Your task to perform on an android device: Go to internet settings Image 0: 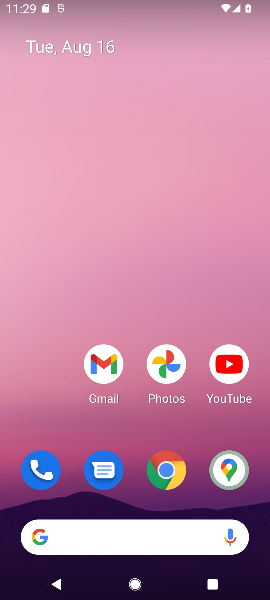
Step 0: drag from (52, 380) to (91, 8)
Your task to perform on an android device: Go to internet settings Image 1: 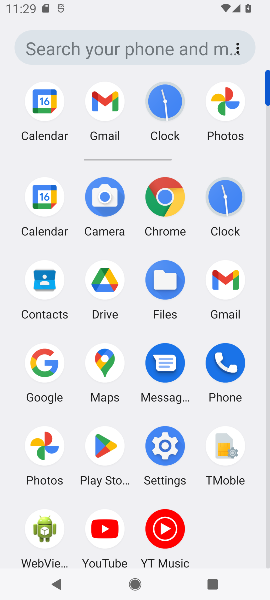
Step 1: click (164, 443)
Your task to perform on an android device: Go to internet settings Image 2: 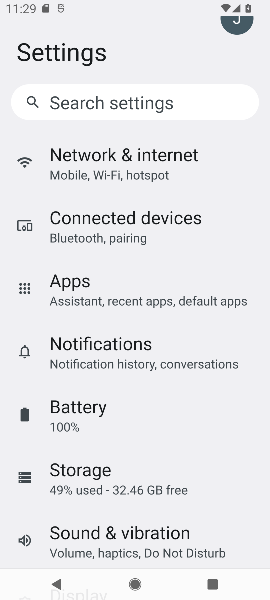
Step 2: click (149, 163)
Your task to perform on an android device: Go to internet settings Image 3: 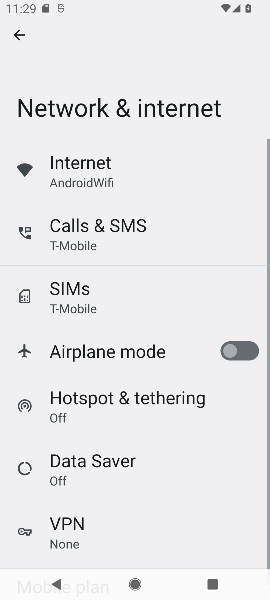
Step 3: click (98, 159)
Your task to perform on an android device: Go to internet settings Image 4: 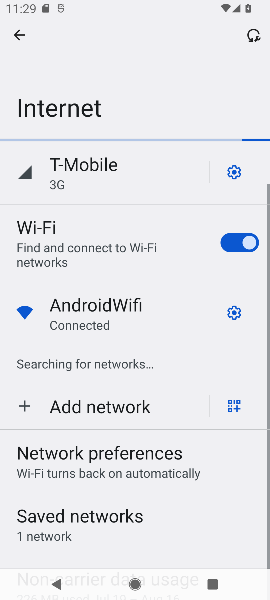
Step 4: task complete